Your task to perform on an android device: toggle location history Image 0: 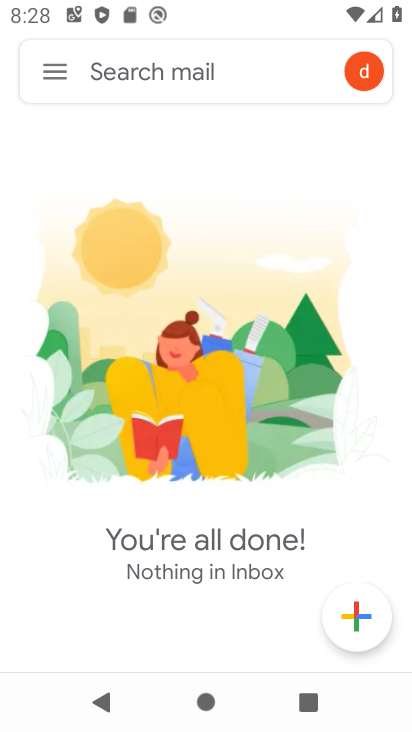
Step 0: press back button
Your task to perform on an android device: toggle location history Image 1: 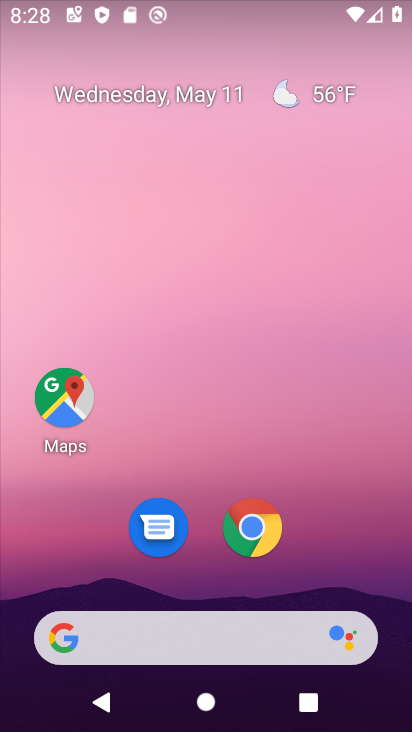
Step 1: drag from (103, 612) to (206, 33)
Your task to perform on an android device: toggle location history Image 2: 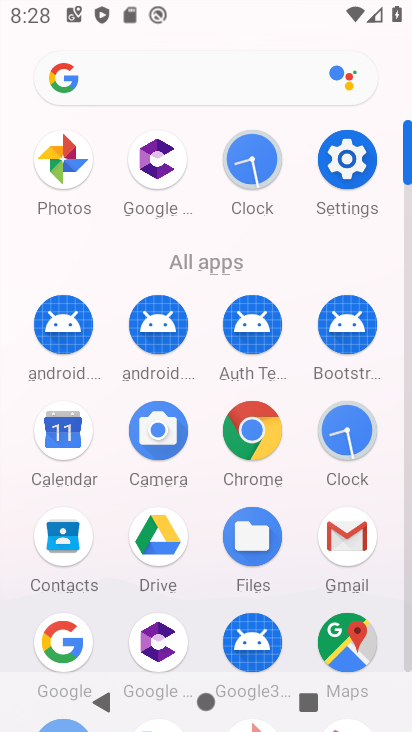
Step 2: click (344, 163)
Your task to perform on an android device: toggle location history Image 3: 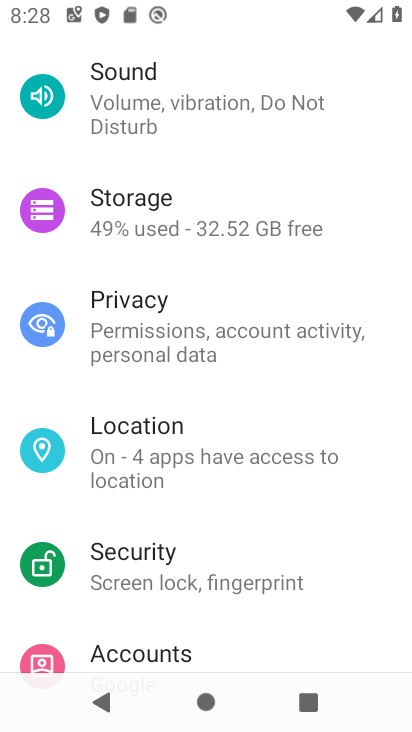
Step 3: click (160, 458)
Your task to perform on an android device: toggle location history Image 4: 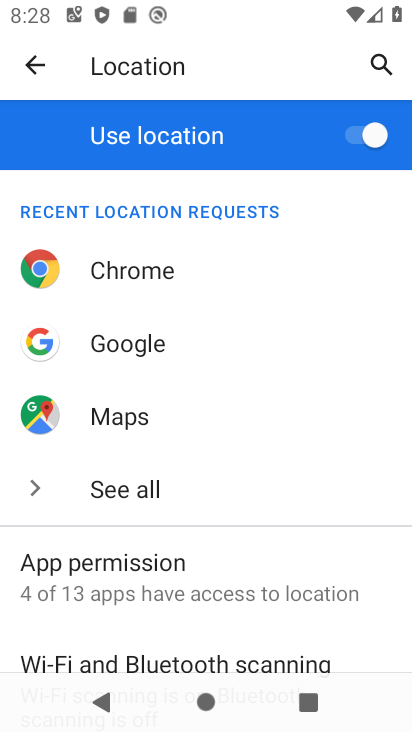
Step 4: drag from (237, 546) to (317, 332)
Your task to perform on an android device: toggle location history Image 5: 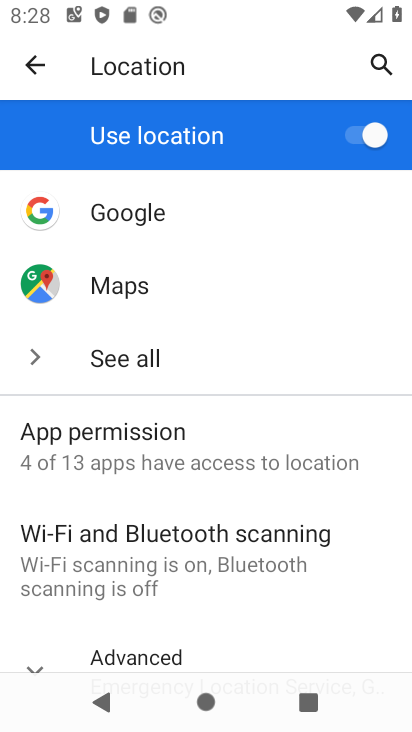
Step 5: drag from (199, 648) to (261, 465)
Your task to perform on an android device: toggle location history Image 6: 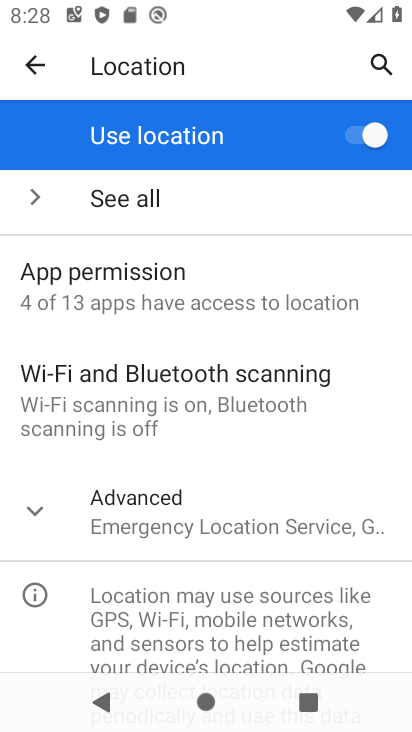
Step 6: click (185, 508)
Your task to perform on an android device: toggle location history Image 7: 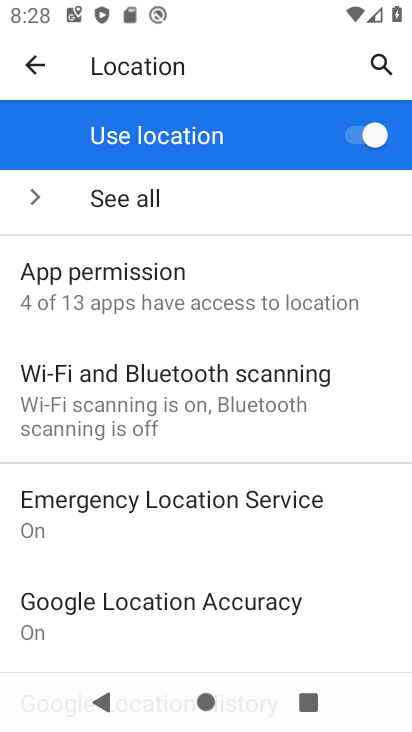
Step 7: drag from (227, 590) to (309, 237)
Your task to perform on an android device: toggle location history Image 8: 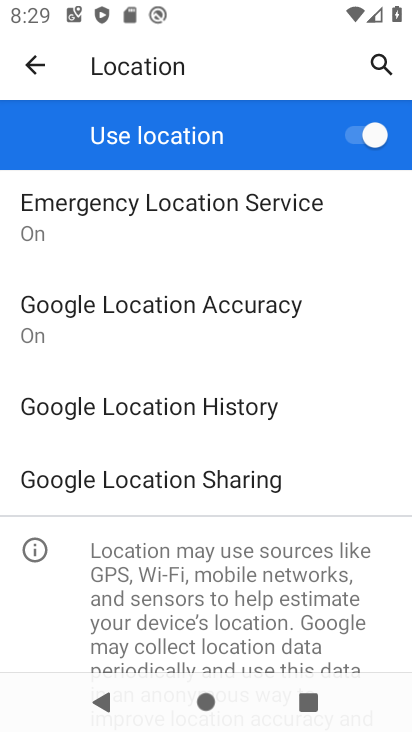
Step 8: click (245, 408)
Your task to perform on an android device: toggle location history Image 9: 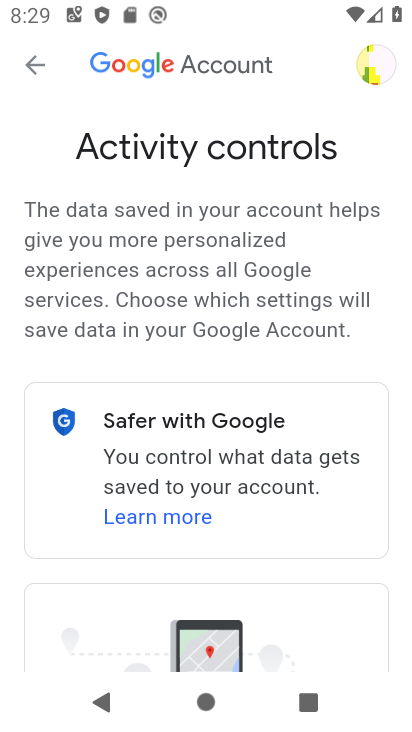
Step 9: drag from (192, 600) to (355, 109)
Your task to perform on an android device: toggle location history Image 10: 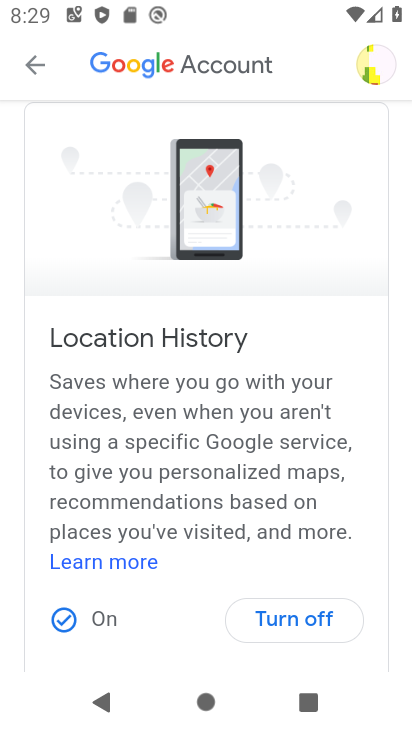
Step 10: click (305, 621)
Your task to perform on an android device: toggle location history Image 11: 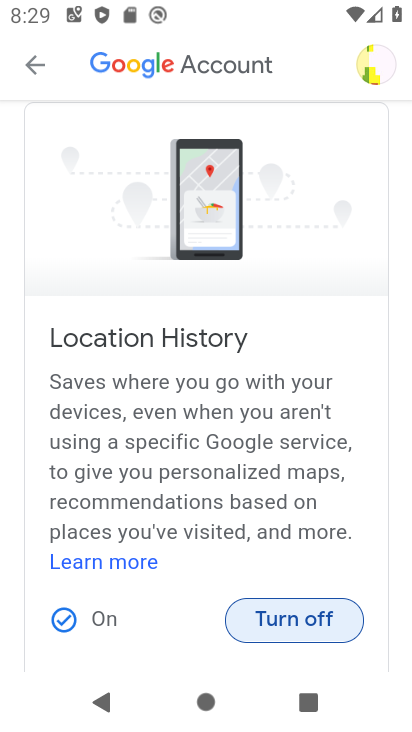
Step 11: click (300, 626)
Your task to perform on an android device: toggle location history Image 12: 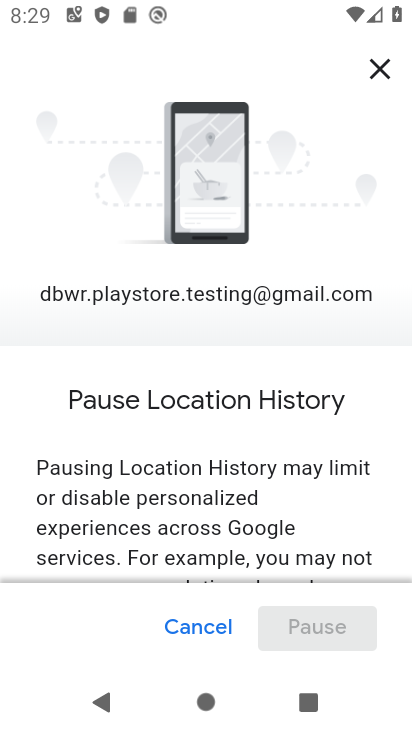
Step 12: drag from (243, 543) to (367, 132)
Your task to perform on an android device: toggle location history Image 13: 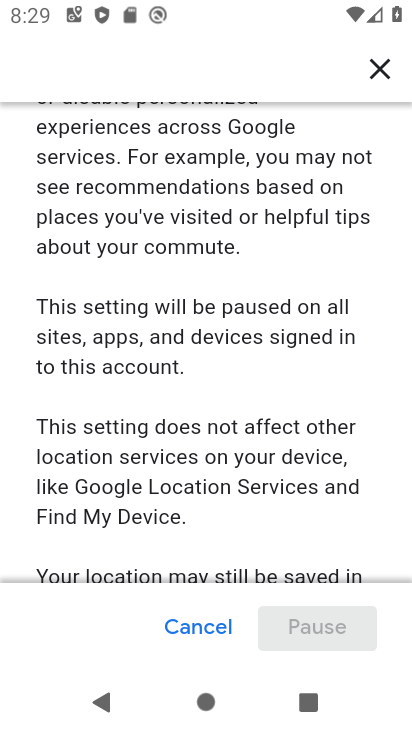
Step 13: drag from (239, 542) to (362, 189)
Your task to perform on an android device: toggle location history Image 14: 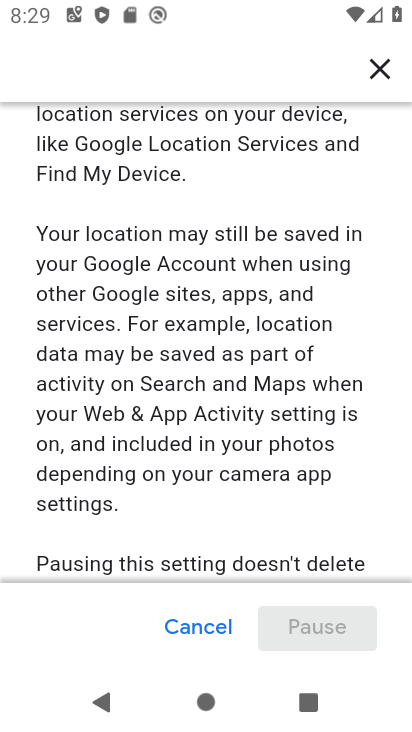
Step 14: drag from (249, 521) to (398, 111)
Your task to perform on an android device: toggle location history Image 15: 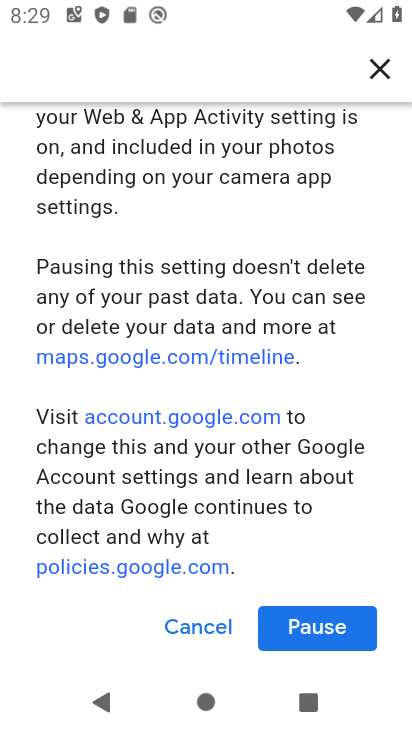
Step 15: click (324, 618)
Your task to perform on an android device: toggle location history Image 16: 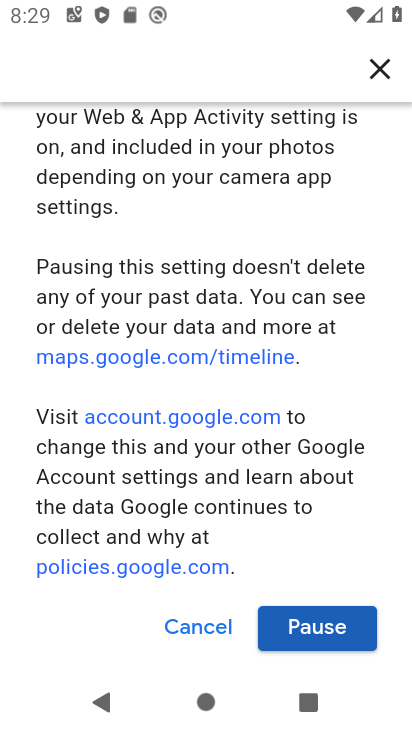
Step 16: click (323, 625)
Your task to perform on an android device: toggle location history Image 17: 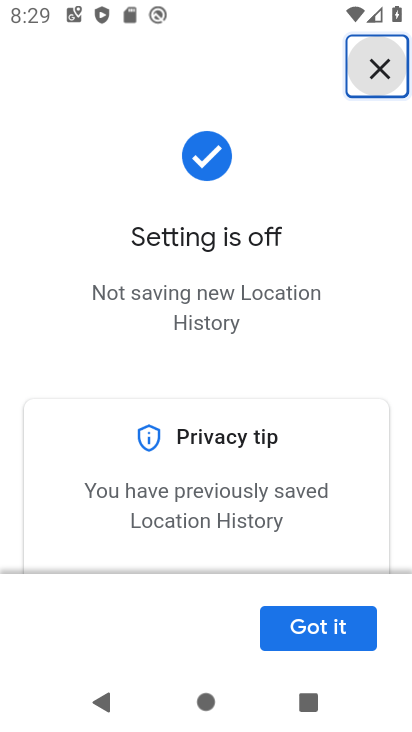
Step 17: click (323, 639)
Your task to perform on an android device: toggle location history Image 18: 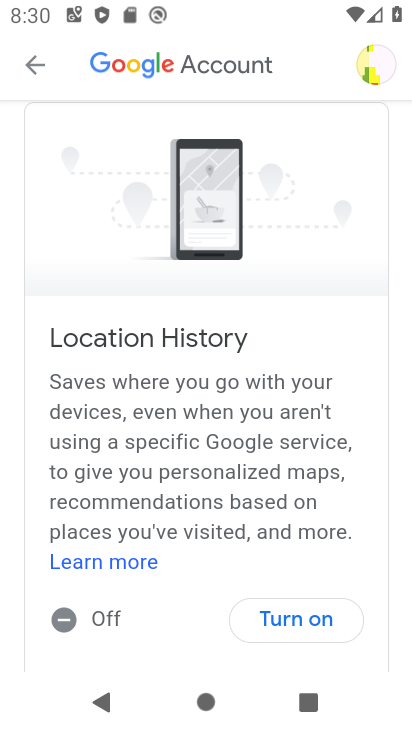
Step 18: task complete